Your task to perform on an android device: set default search engine in the chrome app Image 0: 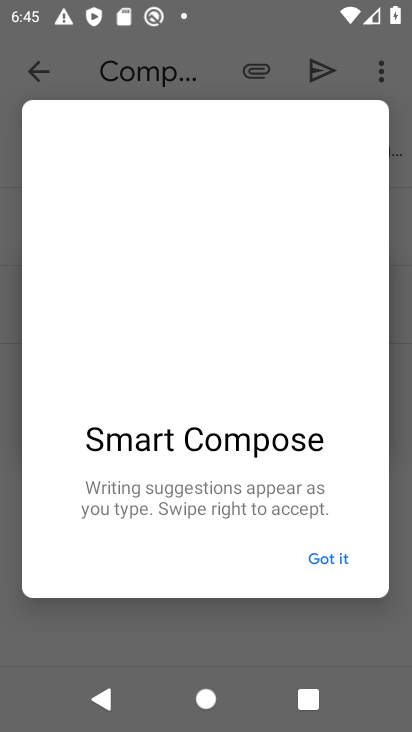
Step 0: press home button
Your task to perform on an android device: set default search engine in the chrome app Image 1: 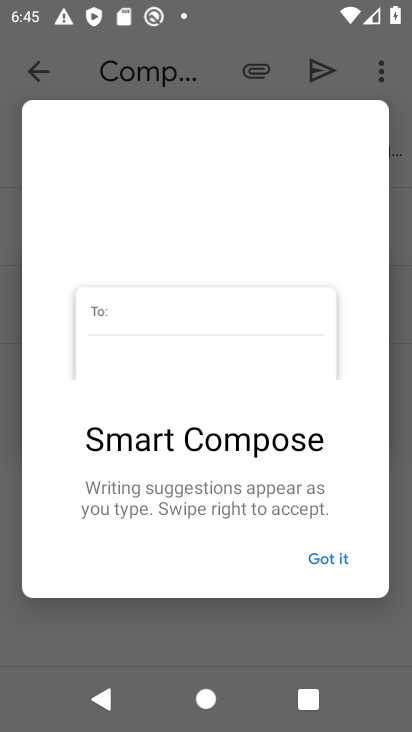
Step 1: drag from (393, 635) to (278, 37)
Your task to perform on an android device: set default search engine in the chrome app Image 2: 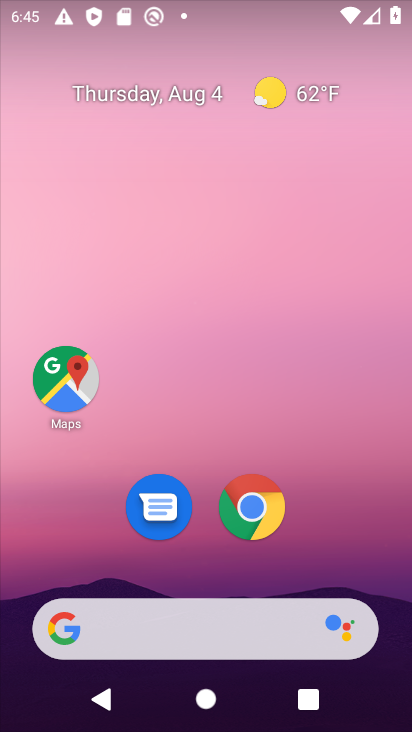
Step 2: drag from (383, 631) to (240, 54)
Your task to perform on an android device: set default search engine in the chrome app Image 3: 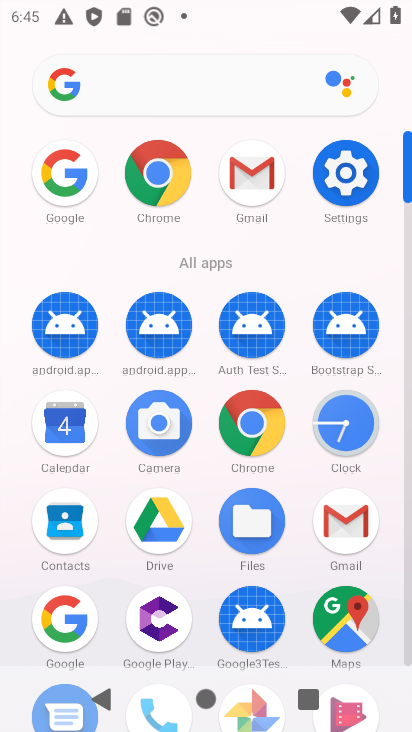
Step 3: click (259, 426)
Your task to perform on an android device: set default search engine in the chrome app Image 4: 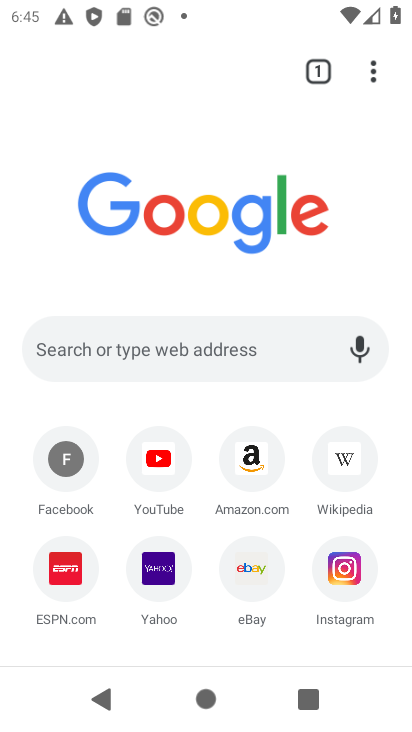
Step 4: click (372, 63)
Your task to perform on an android device: set default search engine in the chrome app Image 5: 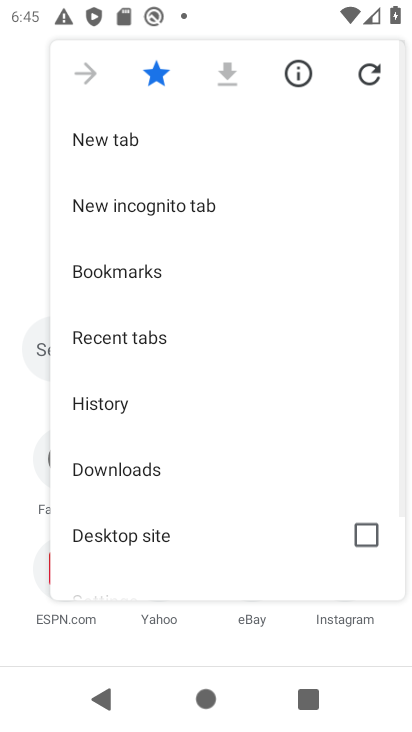
Step 5: drag from (145, 523) to (157, 85)
Your task to perform on an android device: set default search engine in the chrome app Image 6: 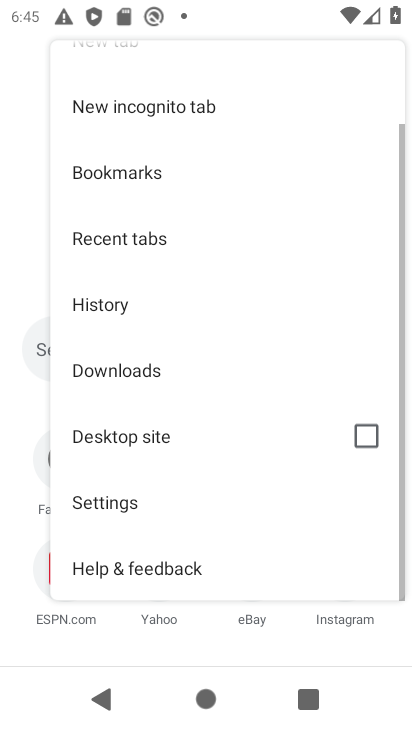
Step 6: click (142, 503)
Your task to perform on an android device: set default search engine in the chrome app Image 7: 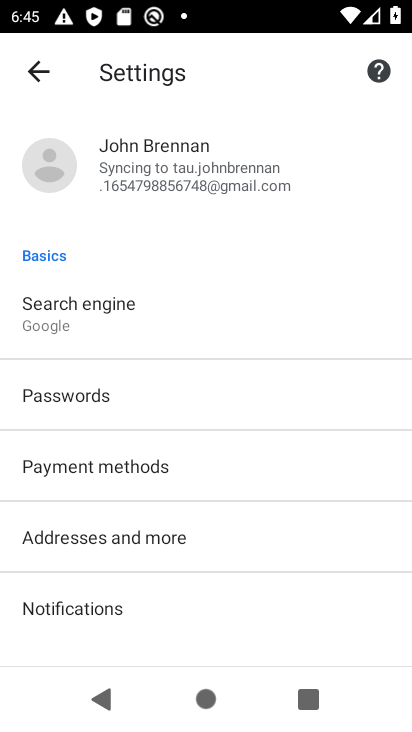
Step 7: drag from (123, 550) to (178, 358)
Your task to perform on an android device: set default search engine in the chrome app Image 8: 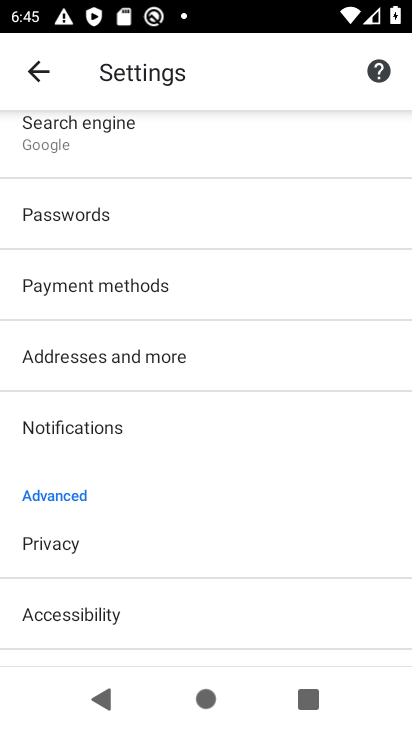
Step 8: click (106, 171)
Your task to perform on an android device: set default search engine in the chrome app Image 9: 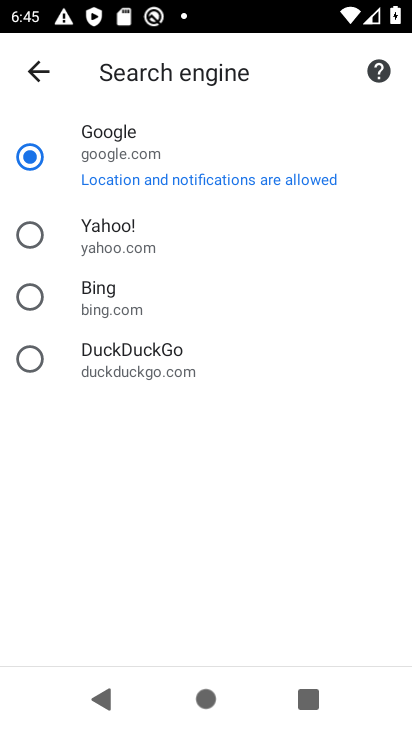
Step 9: click (91, 296)
Your task to perform on an android device: set default search engine in the chrome app Image 10: 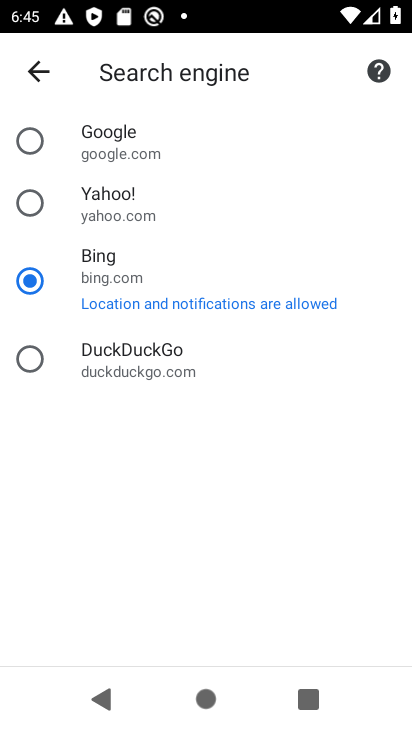
Step 10: task complete